Your task to perform on an android device: turn off translation in the chrome app Image 0: 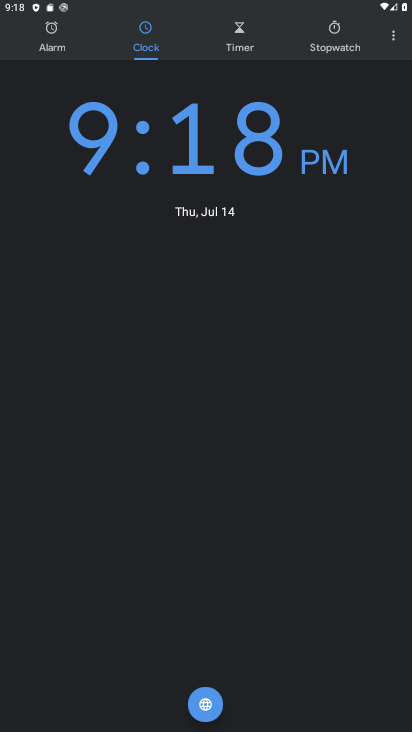
Step 0: press home button
Your task to perform on an android device: turn off translation in the chrome app Image 1: 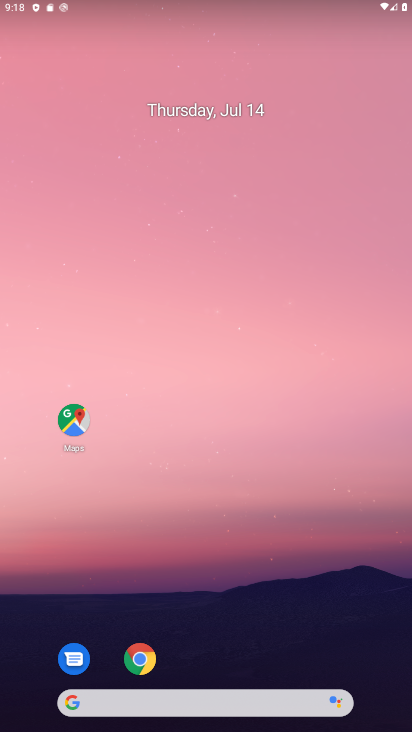
Step 1: drag from (250, 682) to (216, 108)
Your task to perform on an android device: turn off translation in the chrome app Image 2: 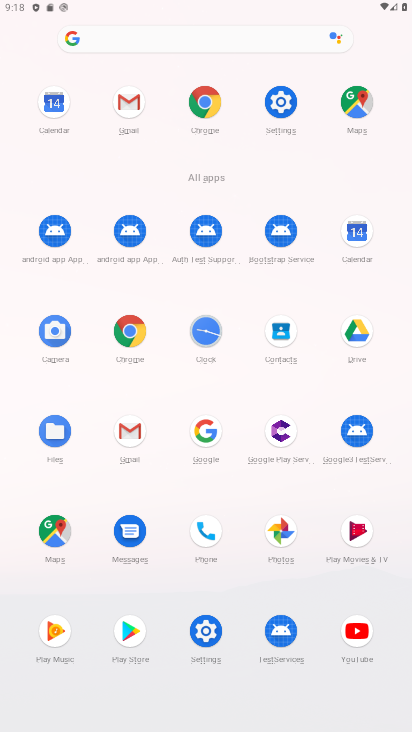
Step 2: click (130, 341)
Your task to perform on an android device: turn off translation in the chrome app Image 3: 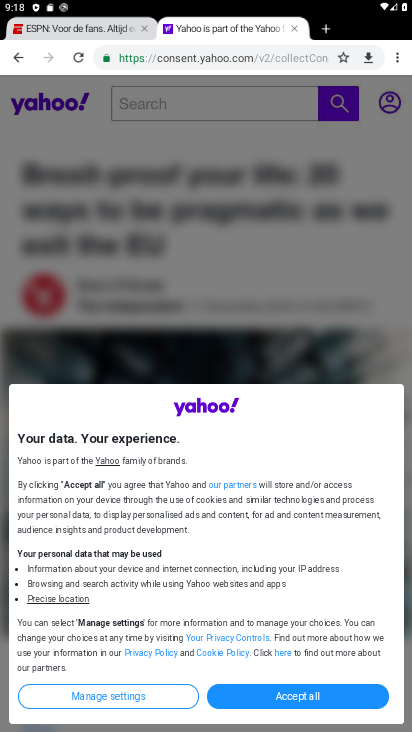
Step 3: click (396, 58)
Your task to perform on an android device: turn off translation in the chrome app Image 4: 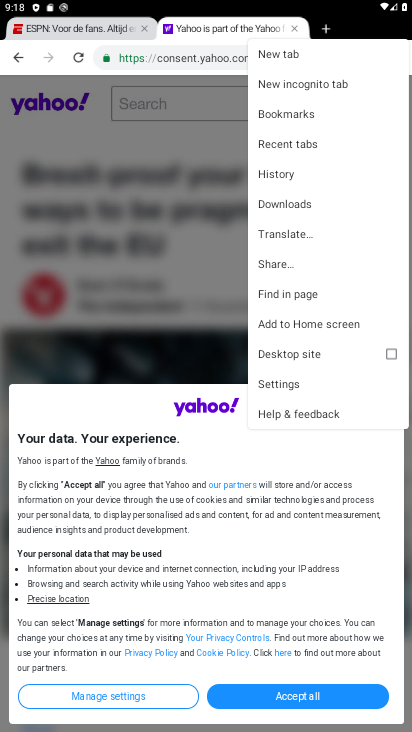
Step 4: click (306, 382)
Your task to perform on an android device: turn off translation in the chrome app Image 5: 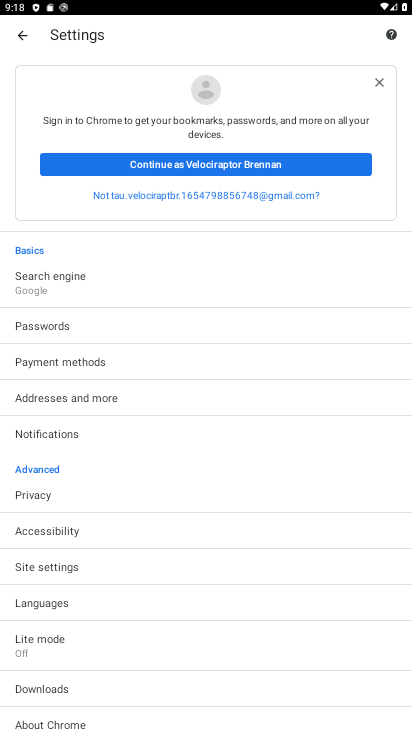
Step 5: click (57, 603)
Your task to perform on an android device: turn off translation in the chrome app Image 6: 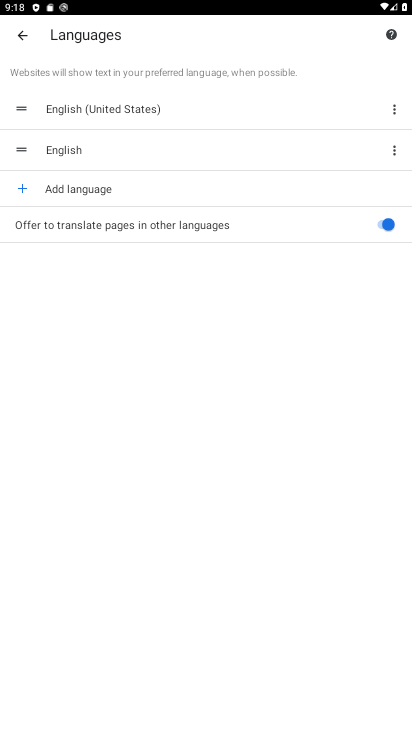
Step 6: click (382, 222)
Your task to perform on an android device: turn off translation in the chrome app Image 7: 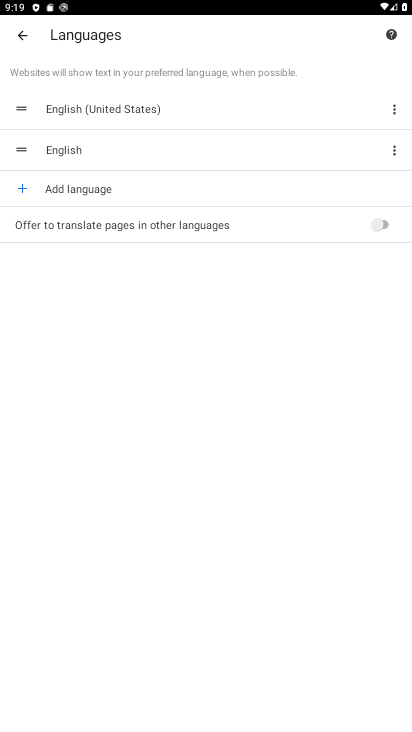
Step 7: task complete